Your task to perform on an android device: open a new tab in the chrome app Image 0: 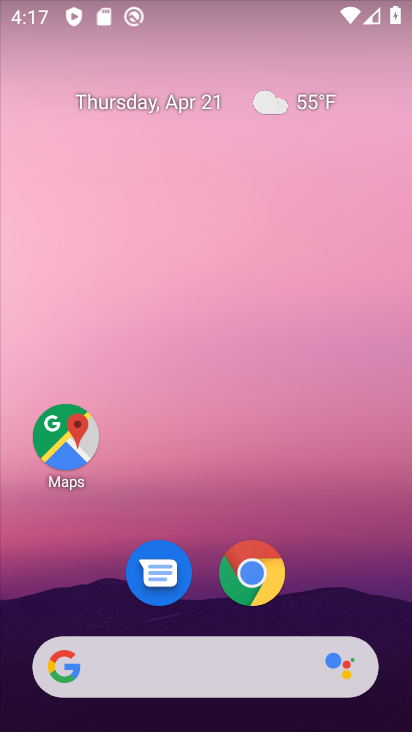
Step 0: click (251, 574)
Your task to perform on an android device: open a new tab in the chrome app Image 1: 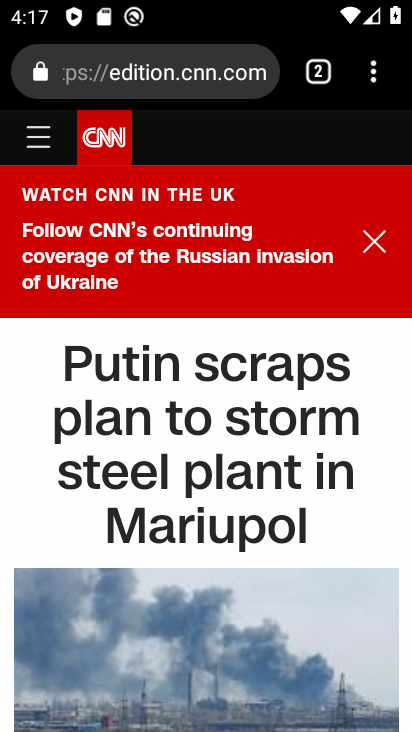
Step 1: click (372, 77)
Your task to perform on an android device: open a new tab in the chrome app Image 2: 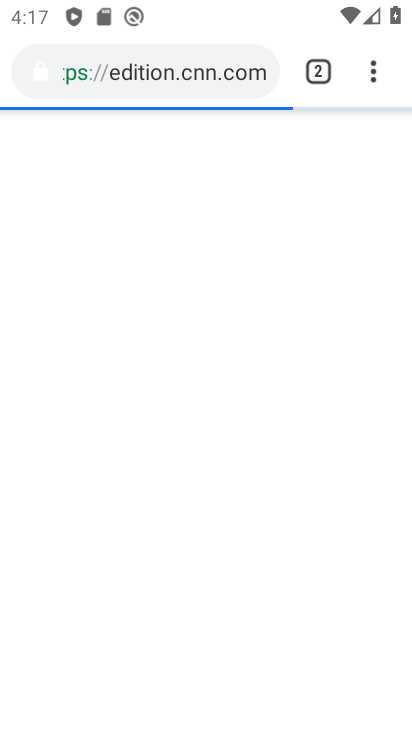
Step 2: click (373, 73)
Your task to perform on an android device: open a new tab in the chrome app Image 3: 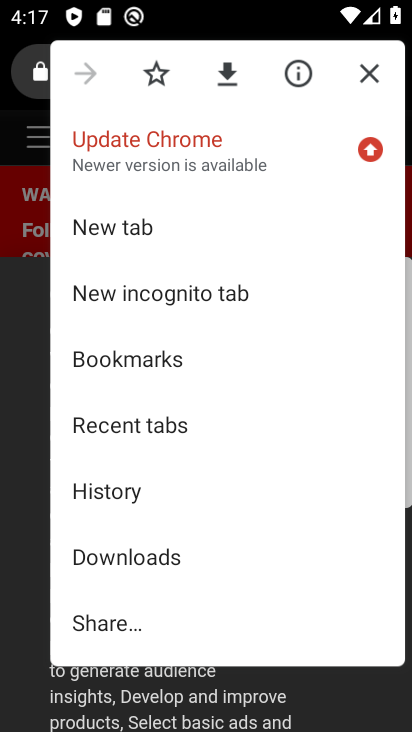
Step 3: click (119, 233)
Your task to perform on an android device: open a new tab in the chrome app Image 4: 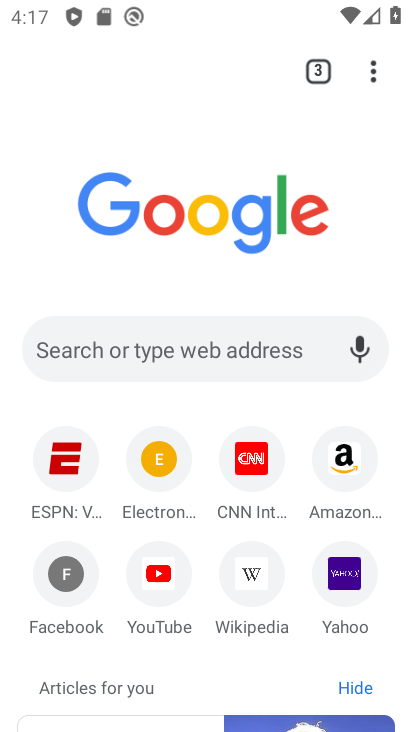
Step 4: task complete